Your task to perform on an android device: Do I have any events this weekend? Image 0: 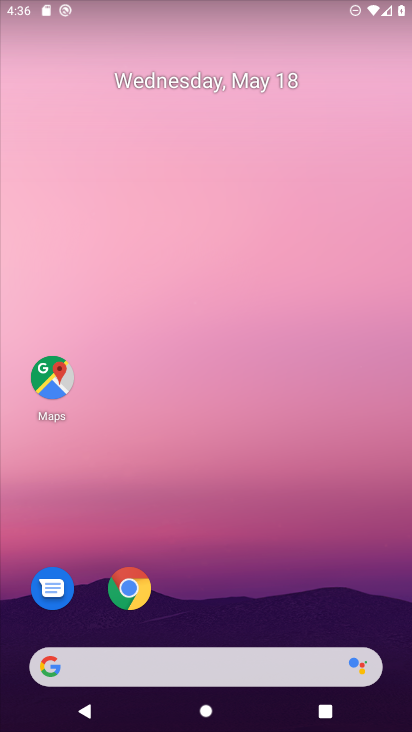
Step 0: drag from (261, 598) to (253, 267)
Your task to perform on an android device: Do I have any events this weekend? Image 1: 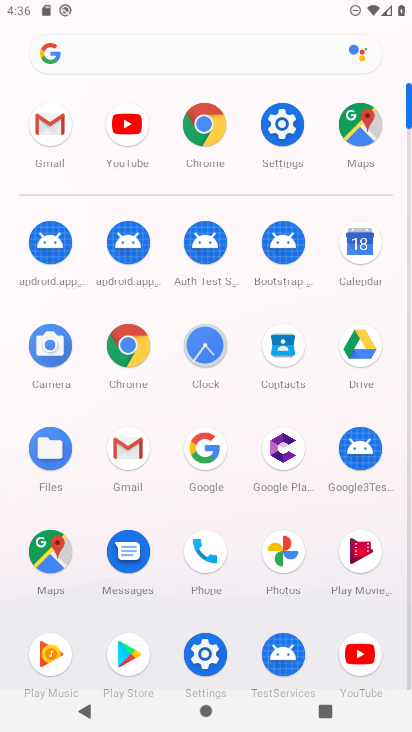
Step 1: click (350, 249)
Your task to perform on an android device: Do I have any events this weekend? Image 2: 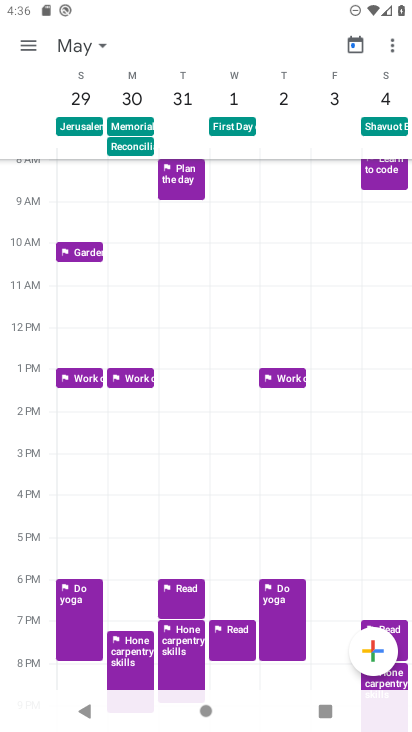
Step 2: task complete